Your task to perform on an android device: open a bookmark in the chrome app Image 0: 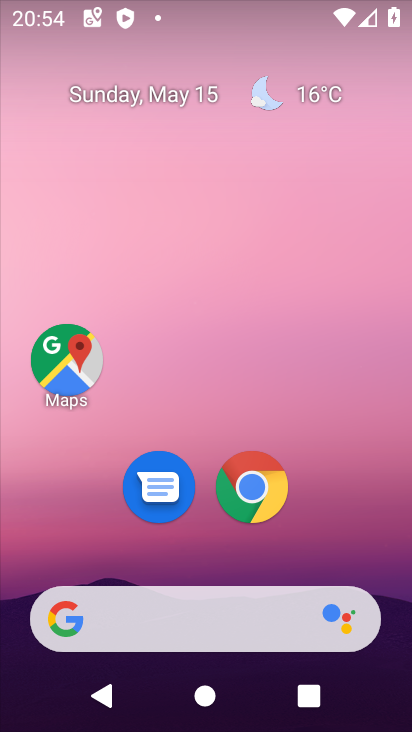
Step 0: click (246, 487)
Your task to perform on an android device: open a bookmark in the chrome app Image 1: 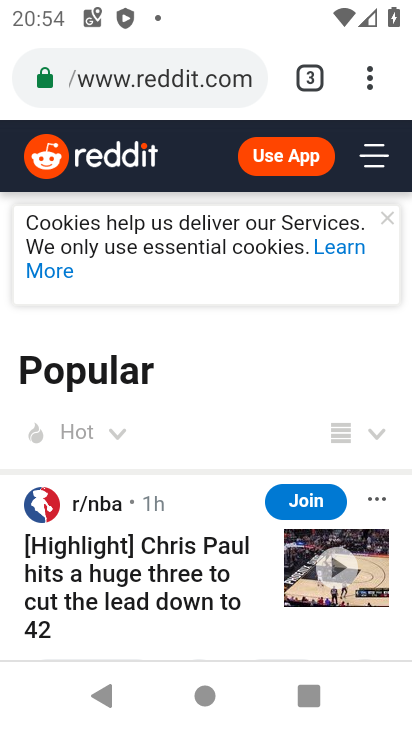
Step 1: click (366, 77)
Your task to perform on an android device: open a bookmark in the chrome app Image 2: 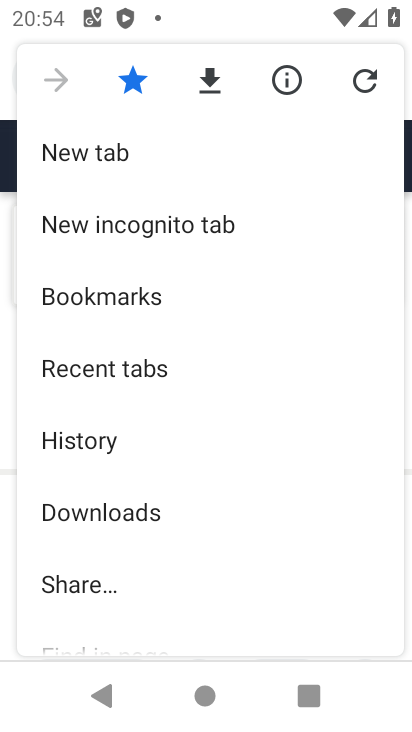
Step 2: click (87, 294)
Your task to perform on an android device: open a bookmark in the chrome app Image 3: 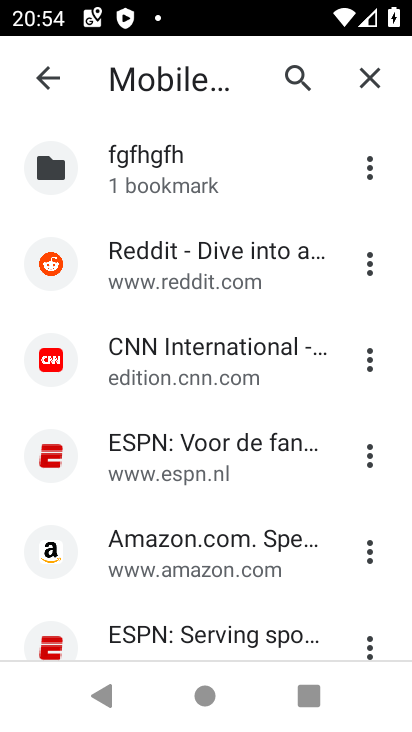
Step 3: drag from (176, 589) to (203, 243)
Your task to perform on an android device: open a bookmark in the chrome app Image 4: 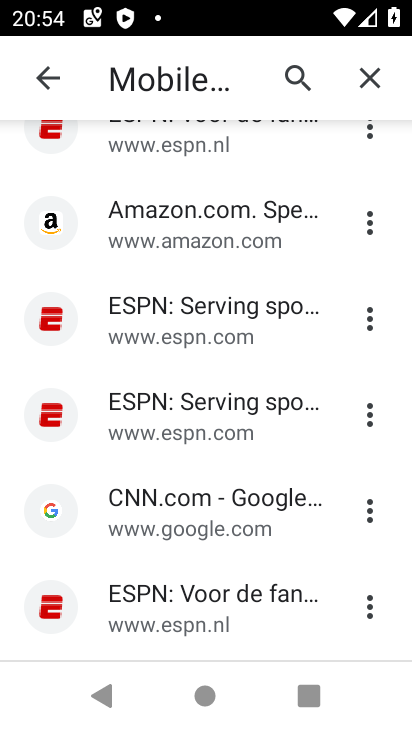
Step 4: click (134, 593)
Your task to perform on an android device: open a bookmark in the chrome app Image 5: 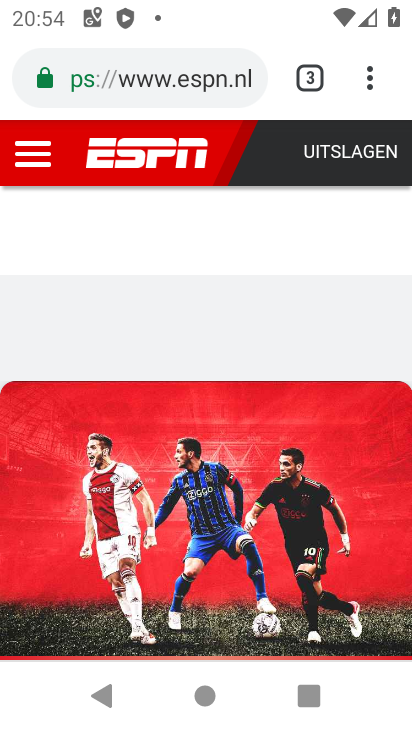
Step 5: task complete